Your task to perform on an android device: toggle data saver in the chrome app Image 0: 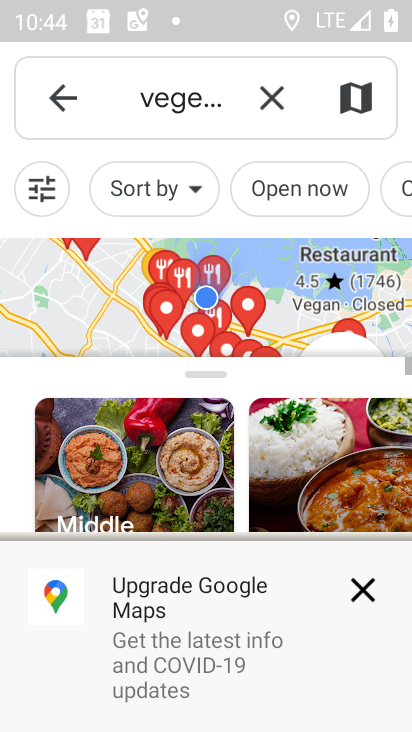
Step 0: press home button
Your task to perform on an android device: toggle data saver in the chrome app Image 1: 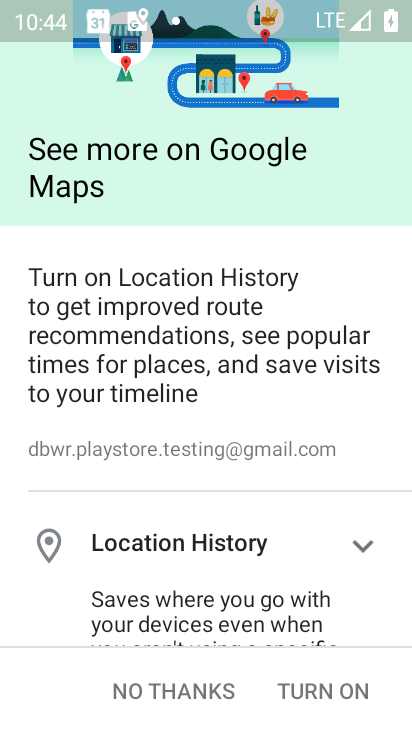
Step 1: press home button
Your task to perform on an android device: toggle data saver in the chrome app Image 2: 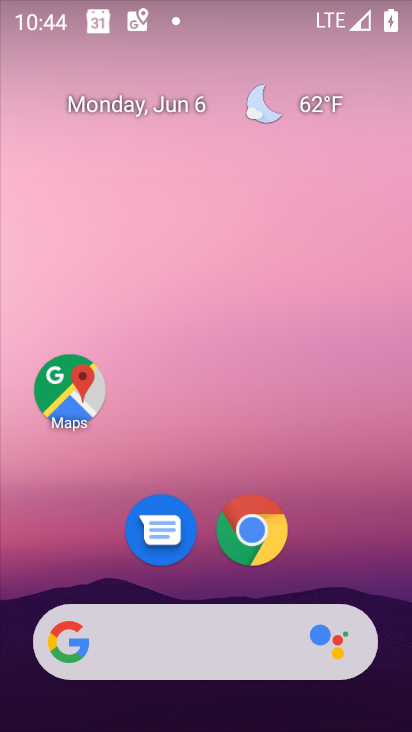
Step 2: click (242, 532)
Your task to perform on an android device: toggle data saver in the chrome app Image 3: 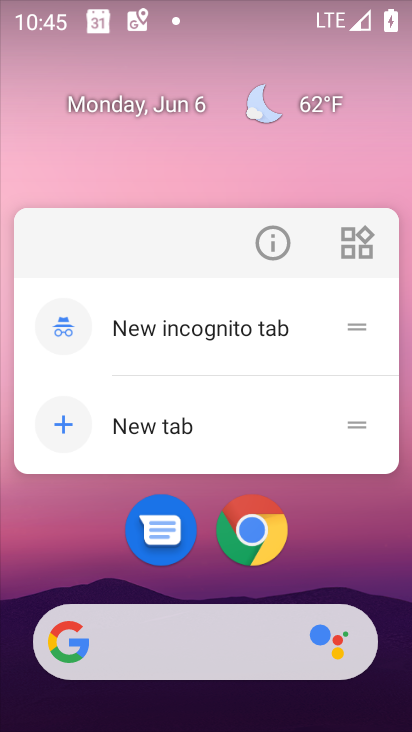
Step 3: click (251, 529)
Your task to perform on an android device: toggle data saver in the chrome app Image 4: 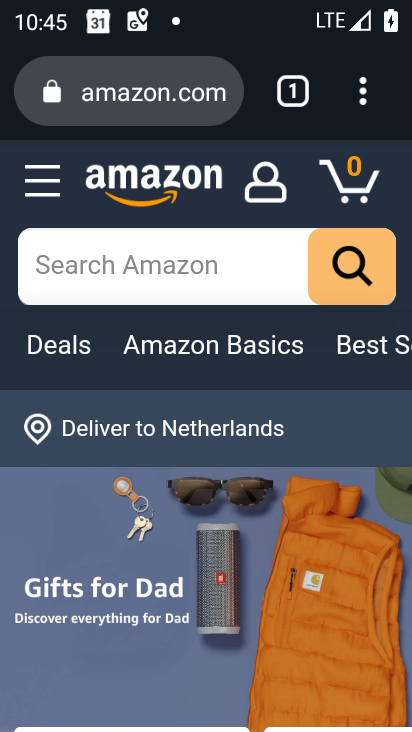
Step 4: click (359, 97)
Your task to perform on an android device: toggle data saver in the chrome app Image 5: 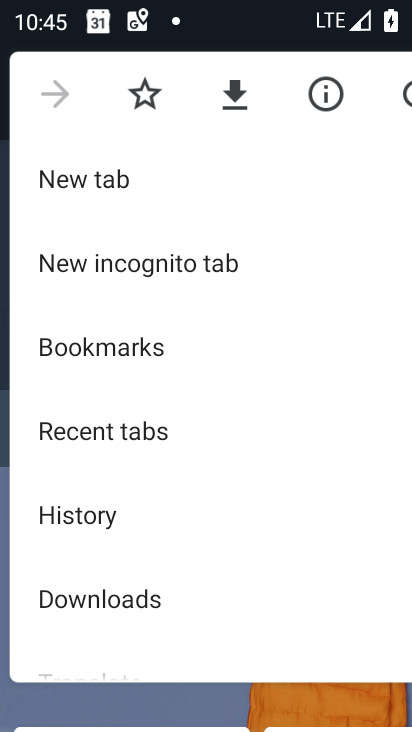
Step 5: drag from (169, 611) to (147, 77)
Your task to perform on an android device: toggle data saver in the chrome app Image 6: 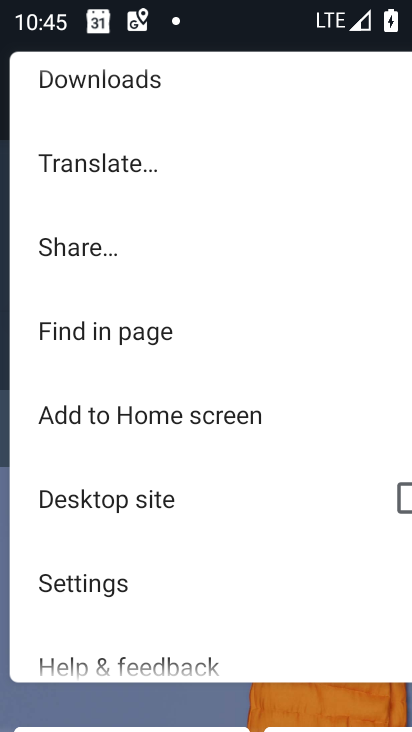
Step 6: click (105, 578)
Your task to perform on an android device: toggle data saver in the chrome app Image 7: 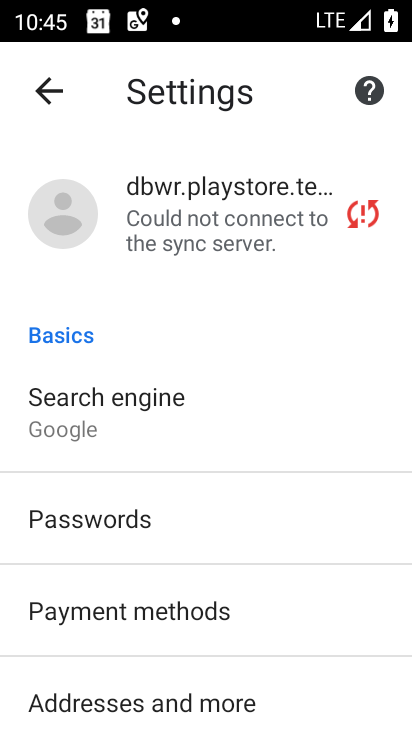
Step 7: drag from (152, 628) to (240, 40)
Your task to perform on an android device: toggle data saver in the chrome app Image 8: 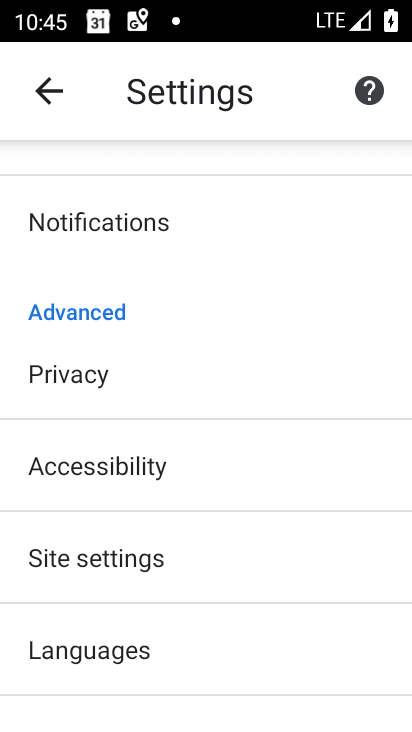
Step 8: drag from (132, 654) to (124, 221)
Your task to perform on an android device: toggle data saver in the chrome app Image 9: 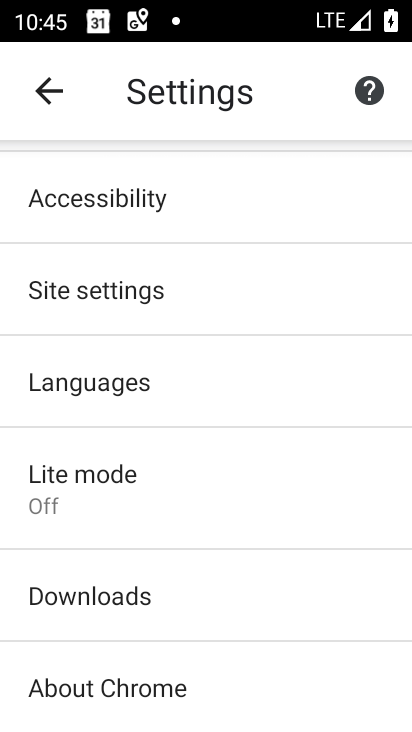
Step 9: click (72, 493)
Your task to perform on an android device: toggle data saver in the chrome app Image 10: 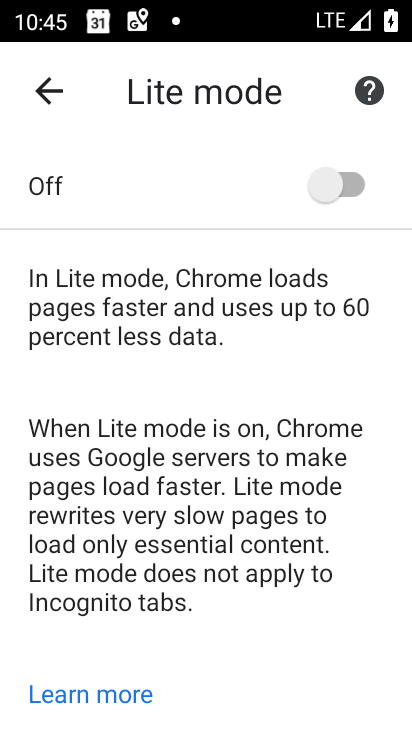
Step 10: click (360, 184)
Your task to perform on an android device: toggle data saver in the chrome app Image 11: 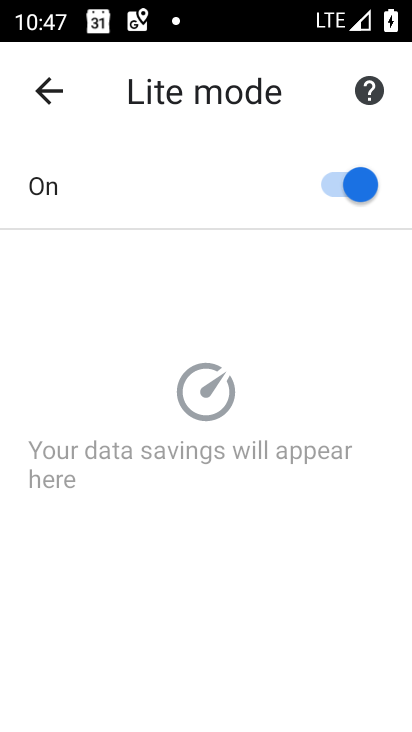
Step 11: task complete